Your task to perform on an android device: Open battery settings Image 0: 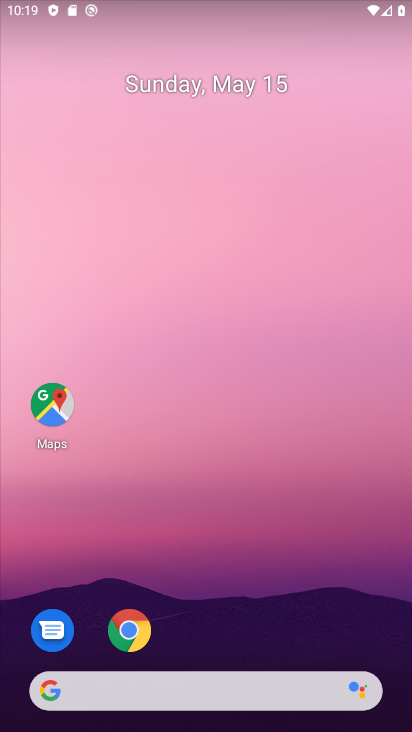
Step 0: drag from (323, 585) to (336, 211)
Your task to perform on an android device: Open battery settings Image 1: 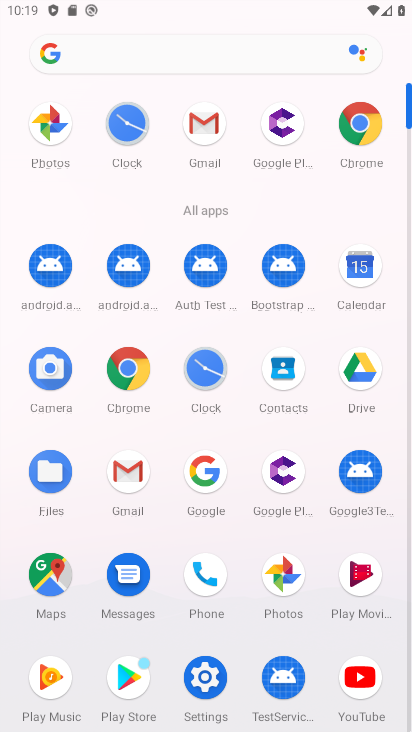
Step 1: click (195, 679)
Your task to perform on an android device: Open battery settings Image 2: 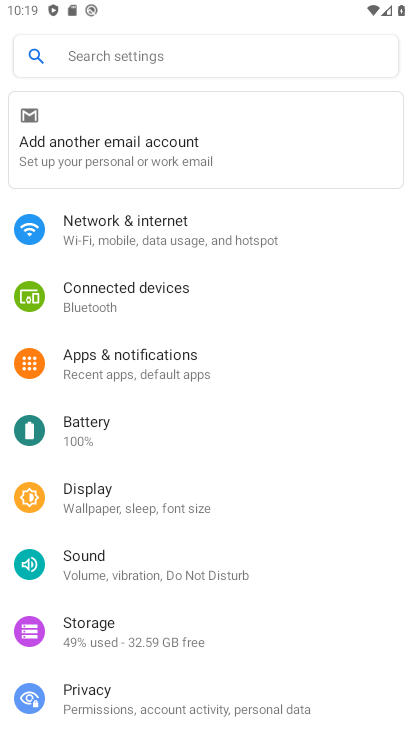
Step 2: click (105, 432)
Your task to perform on an android device: Open battery settings Image 3: 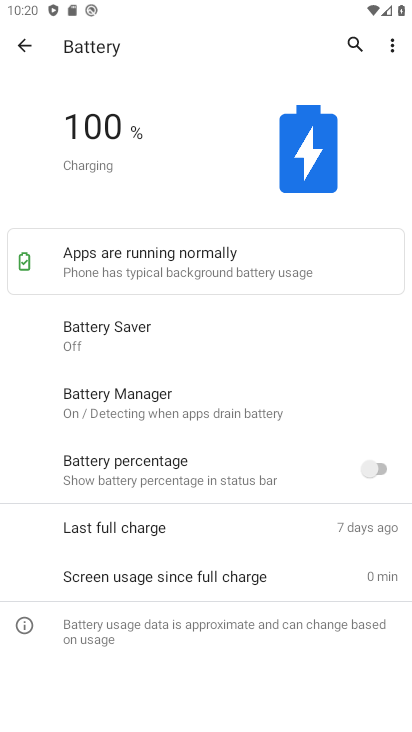
Step 3: task complete